Your task to perform on an android device: Is it going to rain today? Image 0: 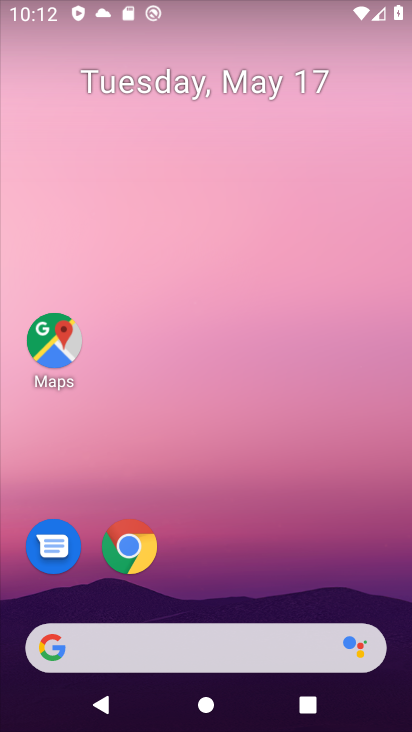
Step 0: drag from (249, 582) to (247, 306)
Your task to perform on an android device: Is it going to rain today? Image 1: 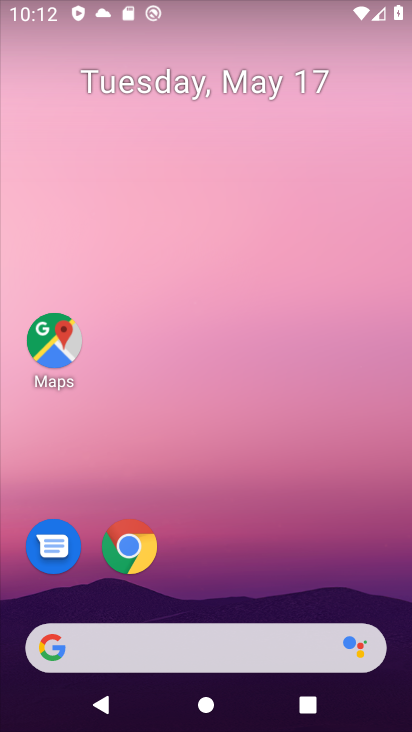
Step 1: click (141, 550)
Your task to perform on an android device: Is it going to rain today? Image 2: 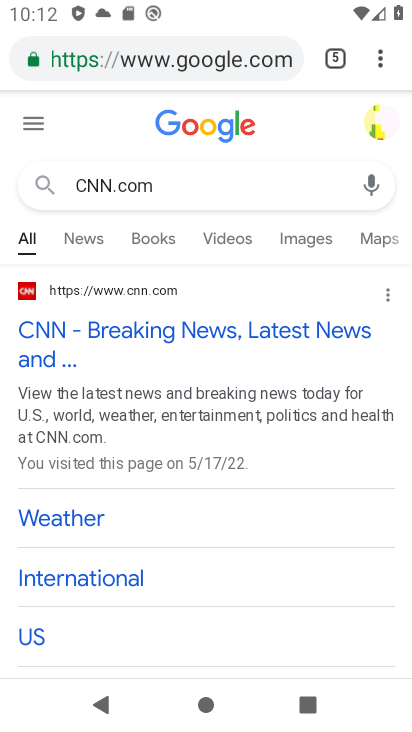
Step 2: click (374, 61)
Your task to perform on an android device: Is it going to rain today? Image 3: 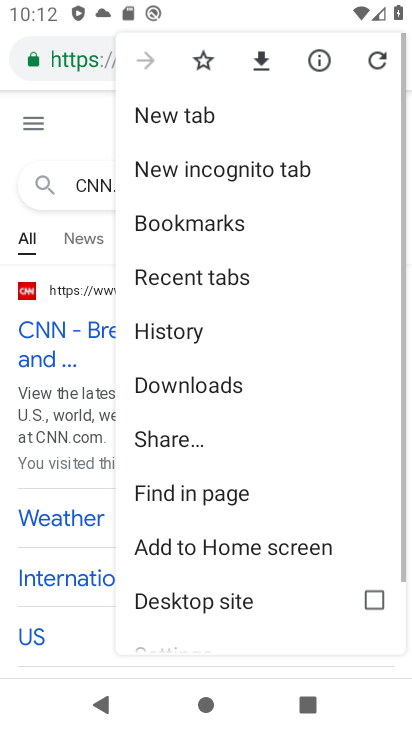
Step 3: click (178, 105)
Your task to perform on an android device: Is it going to rain today? Image 4: 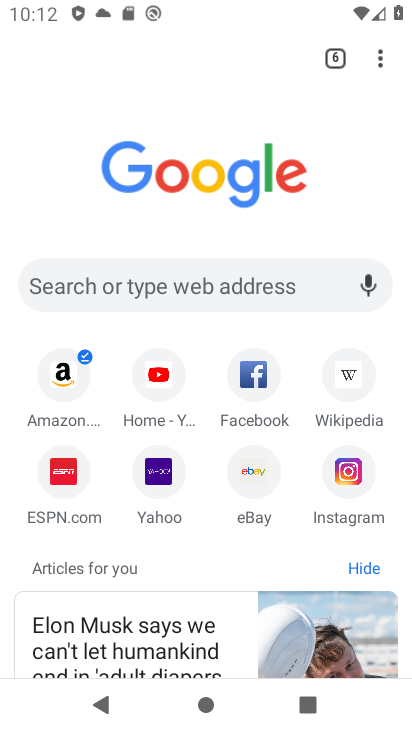
Step 4: click (189, 274)
Your task to perform on an android device: Is it going to rain today? Image 5: 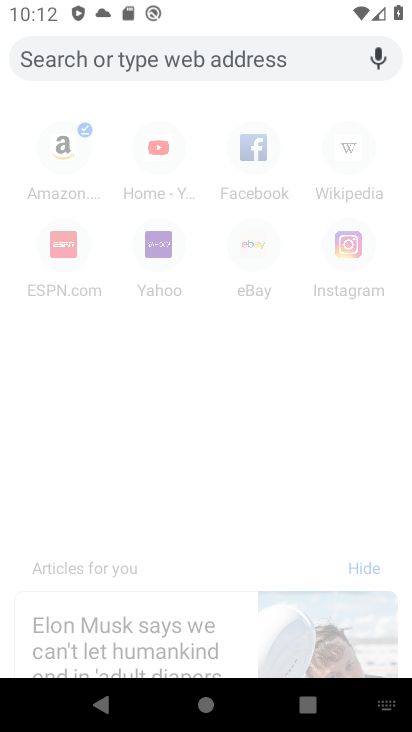
Step 5: type "Is it going to rain today?"
Your task to perform on an android device: Is it going to rain today? Image 6: 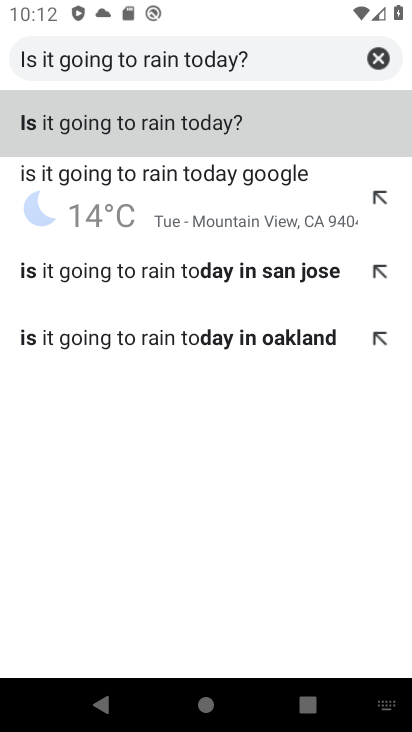
Step 6: click (205, 123)
Your task to perform on an android device: Is it going to rain today? Image 7: 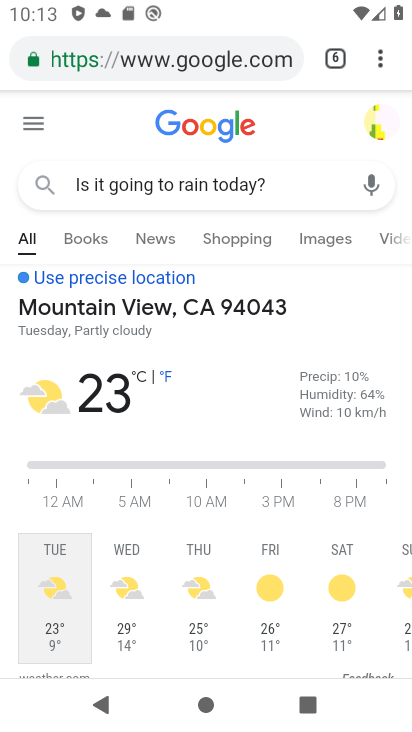
Step 7: task complete